Your task to perform on an android device: set default search engine in the chrome app Image 0: 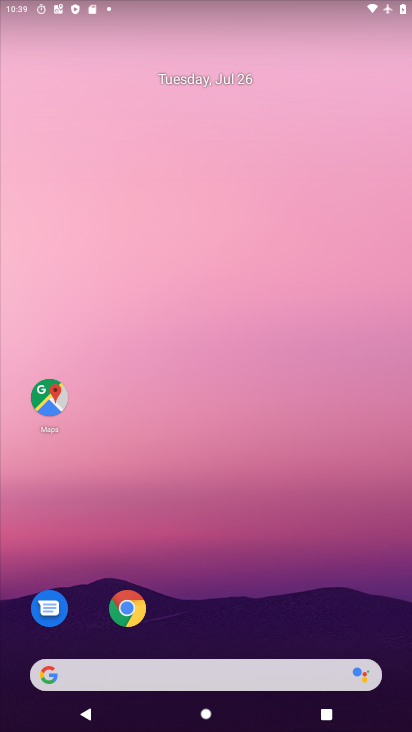
Step 0: click (113, 617)
Your task to perform on an android device: set default search engine in the chrome app Image 1: 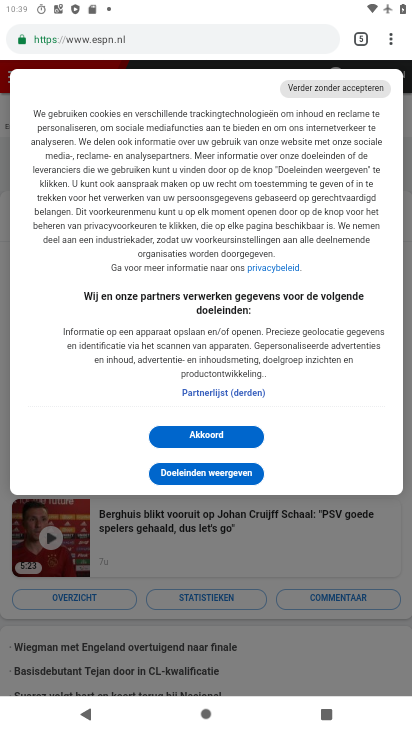
Step 1: click (385, 44)
Your task to perform on an android device: set default search engine in the chrome app Image 2: 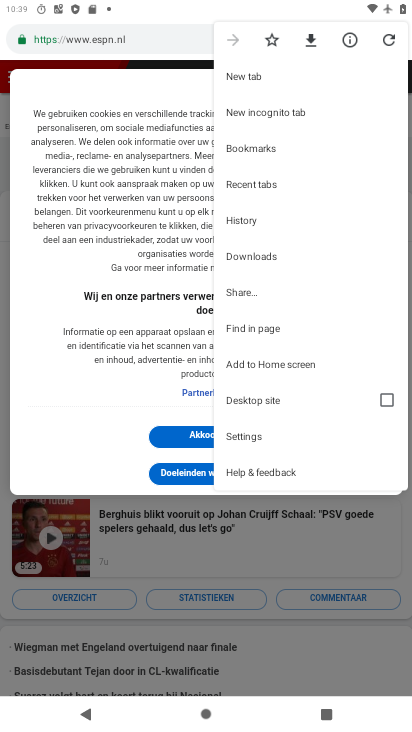
Step 2: click (257, 429)
Your task to perform on an android device: set default search engine in the chrome app Image 3: 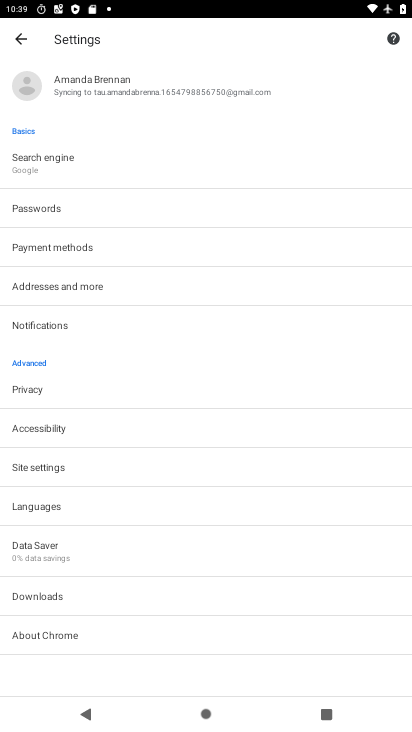
Step 3: click (66, 152)
Your task to perform on an android device: set default search engine in the chrome app Image 4: 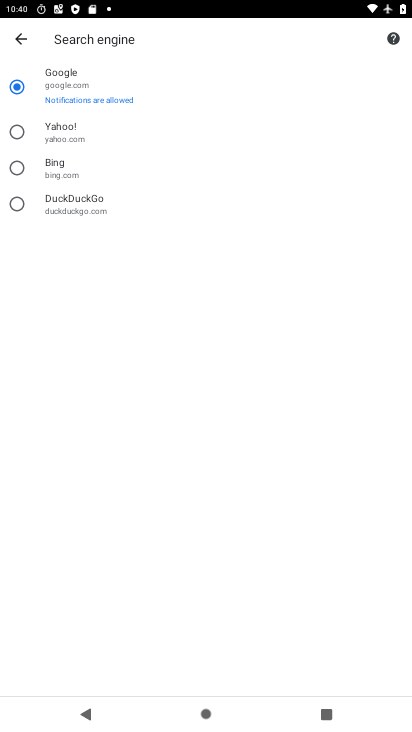
Step 4: task complete